Your task to perform on an android device: Open the calendar app, open the side menu, and click the "Day" option Image 0: 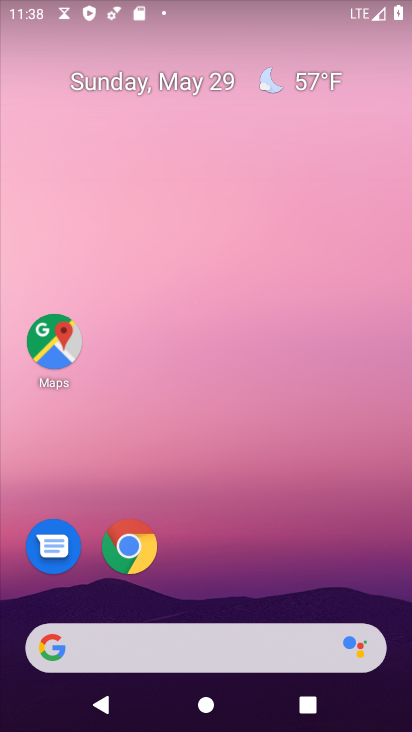
Step 0: press home button
Your task to perform on an android device: Open the calendar app, open the side menu, and click the "Day" option Image 1: 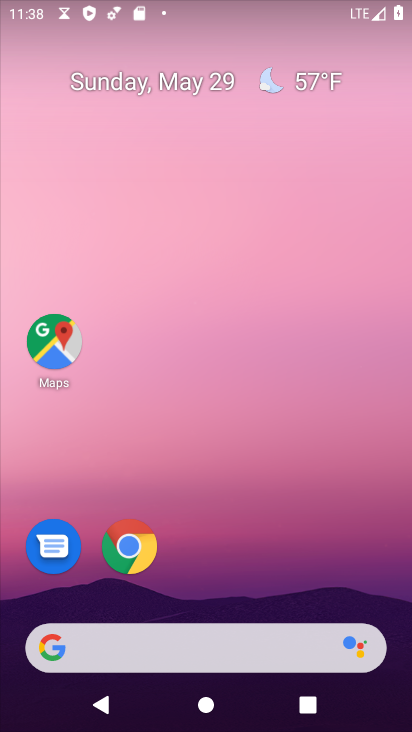
Step 1: drag from (121, 648) to (299, 76)
Your task to perform on an android device: Open the calendar app, open the side menu, and click the "Day" option Image 2: 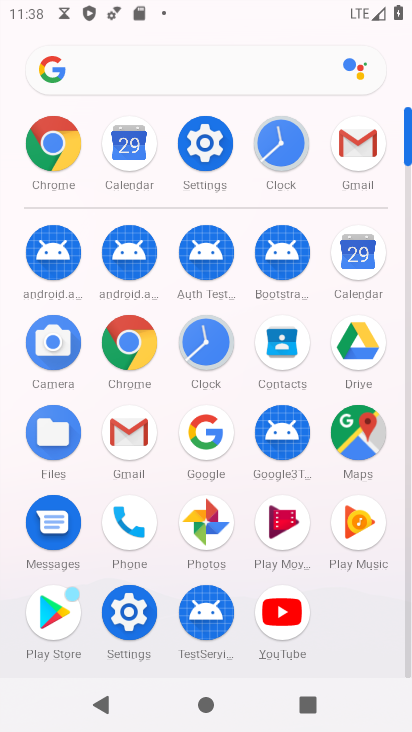
Step 2: click (133, 159)
Your task to perform on an android device: Open the calendar app, open the side menu, and click the "Day" option Image 3: 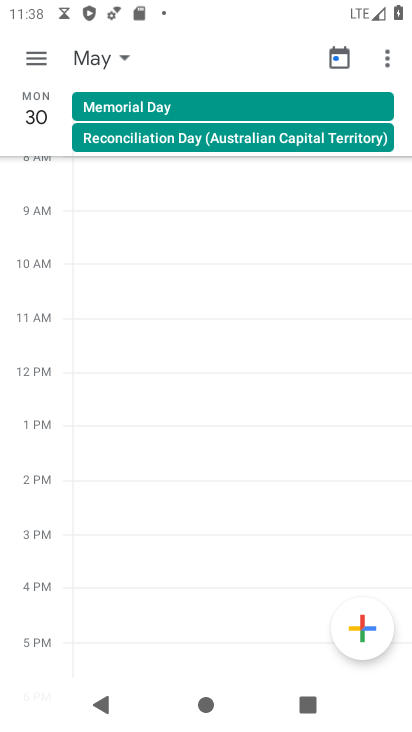
Step 3: click (41, 53)
Your task to perform on an android device: Open the calendar app, open the side menu, and click the "Day" option Image 4: 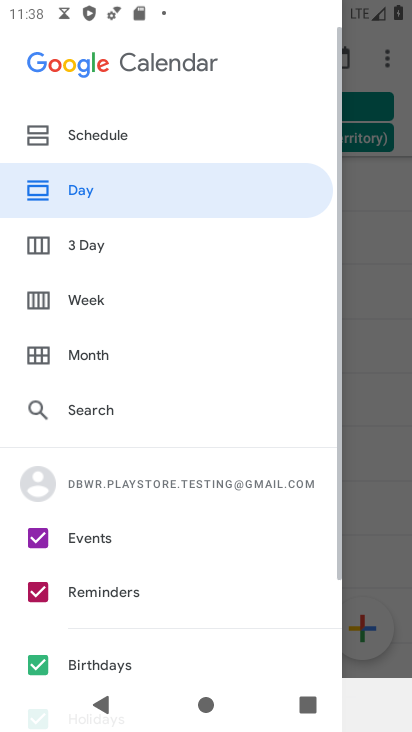
Step 4: click (106, 195)
Your task to perform on an android device: Open the calendar app, open the side menu, and click the "Day" option Image 5: 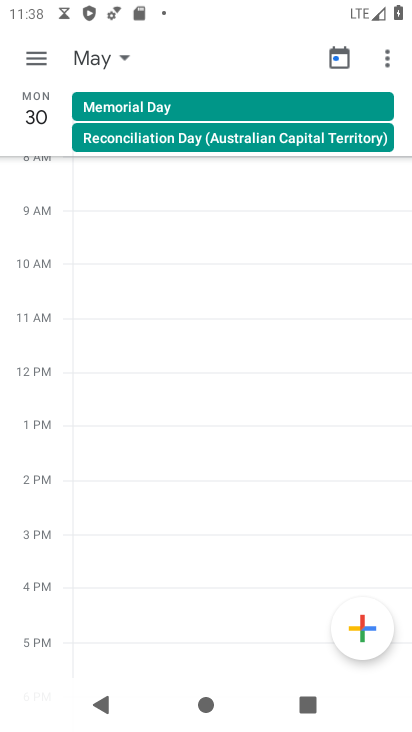
Step 5: task complete